Your task to perform on an android device: install app "DoorDash - Food Delivery" Image 0: 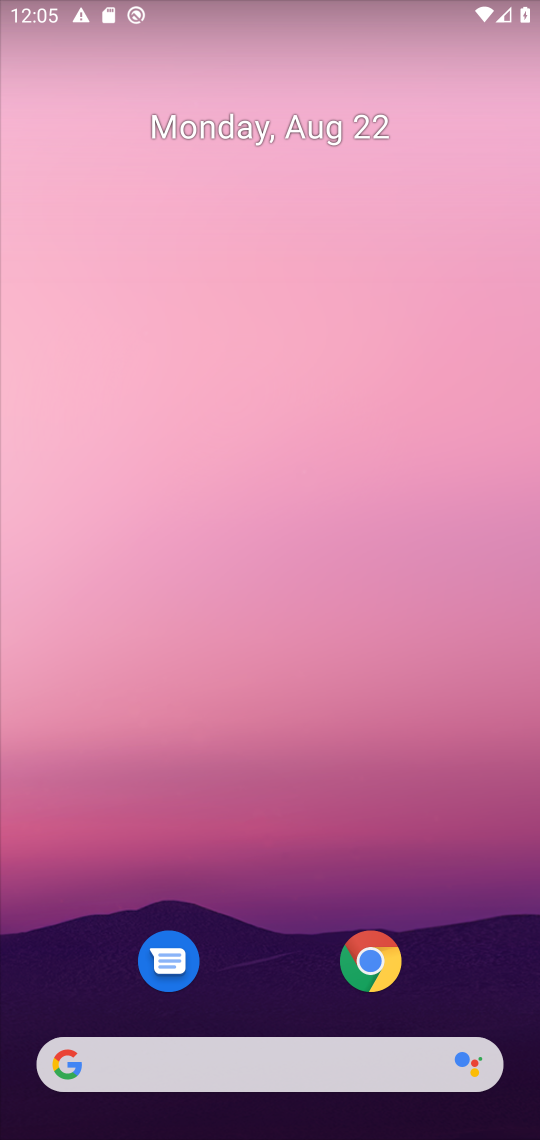
Step 0: press home button
Your task to perform on an android device: install app "DoorDash - Food Delivery" Image 1: 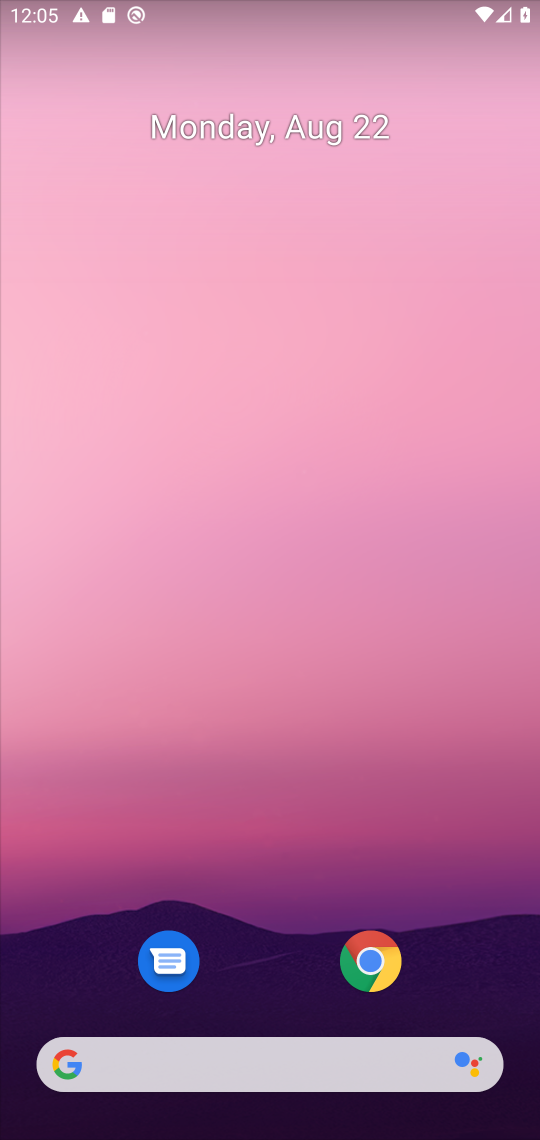
Step 1: drag from (474, 999) to (471, 88)
Your task to perform on an android device: install app "DoorDash - Food Delivery" Image 2: 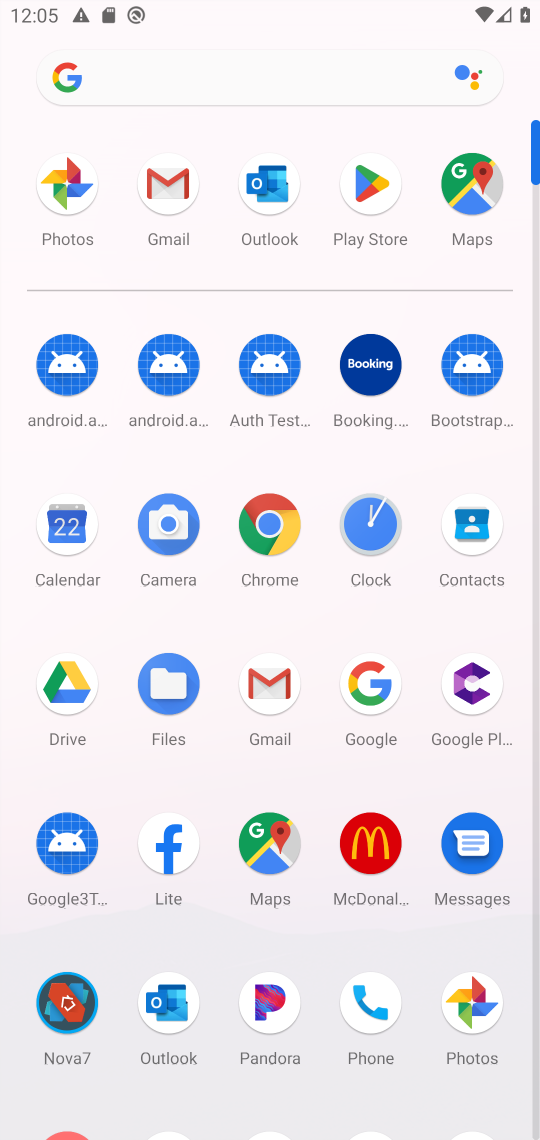
Step 2: click (373, 190)
Your task to perform on an android device: install app "DoorDash - Food Delivery" Image 3: 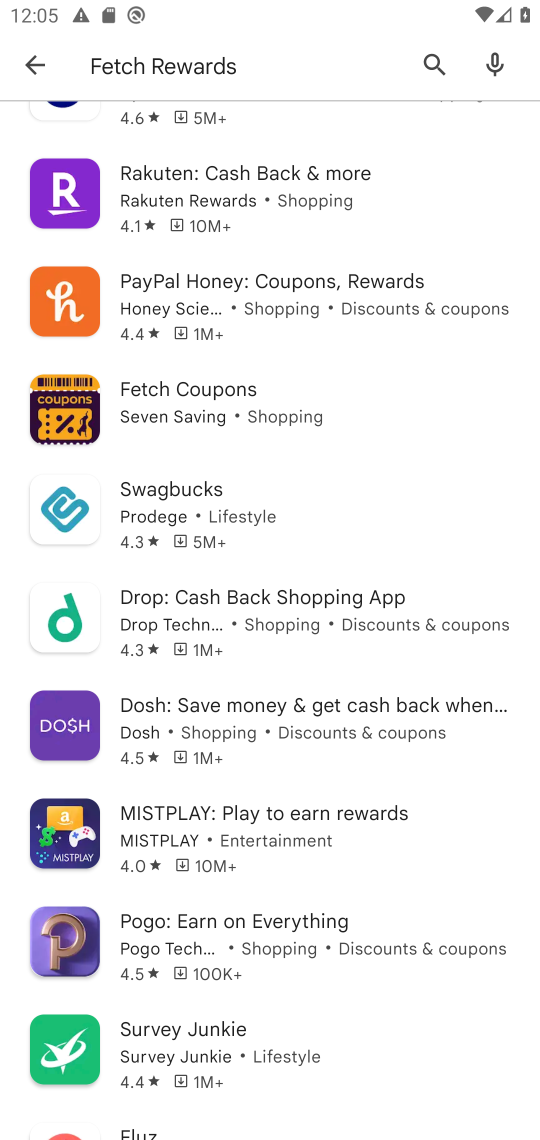
Step 3: press back button
Your task to perform on an android device: install app "DoorDash - Food Delivery" Image 4: 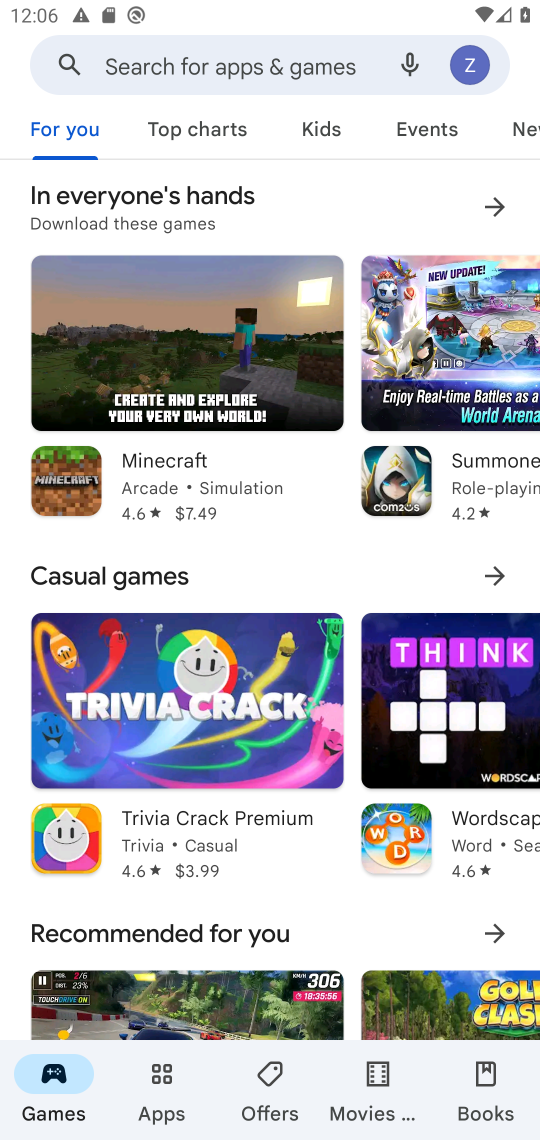
Step 4: click (259, 52)
Your task to perform on an android device: install app "DoorDash - Food Delivery" Image 5: 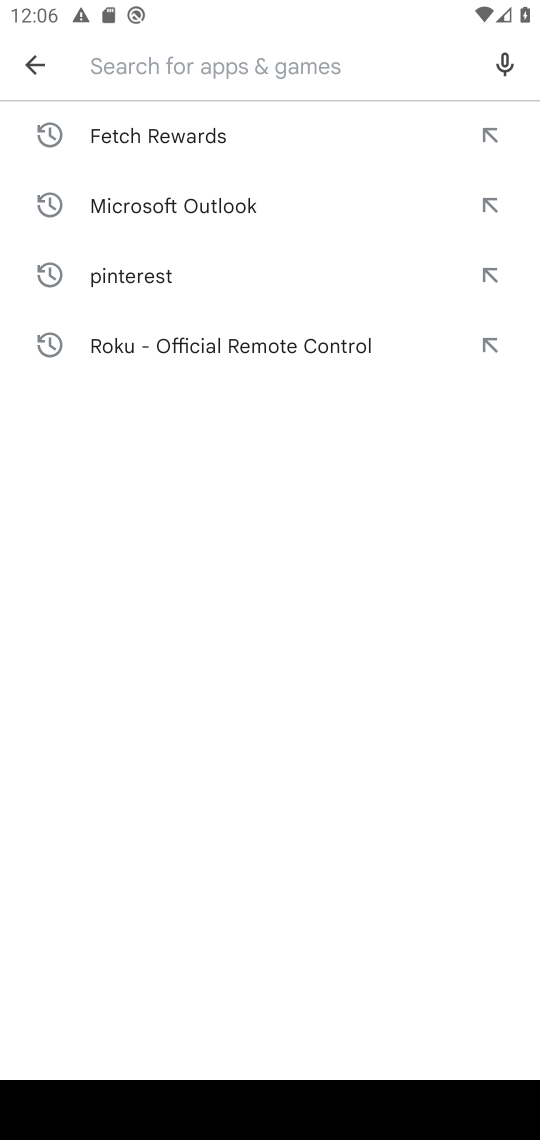
Step 5: press enter
Your task to perform on an android device: install app "DoorDash - Food Delivery" Image 6: 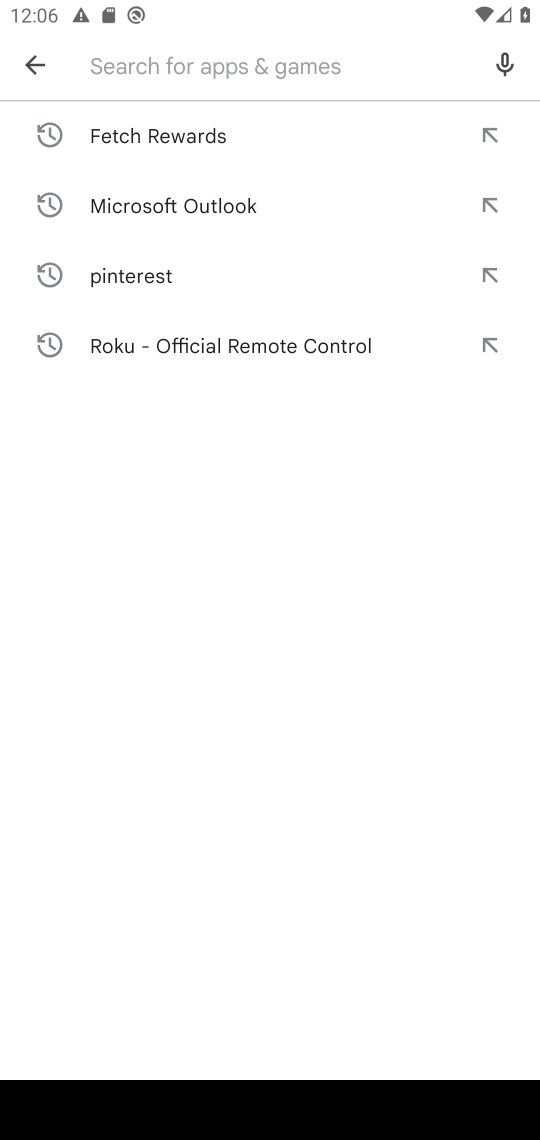
Step 6: type "DoorDash - Food Delivery"
Your task to perform on an android device: install app "DoorDash - Food Delivery" Image 7: 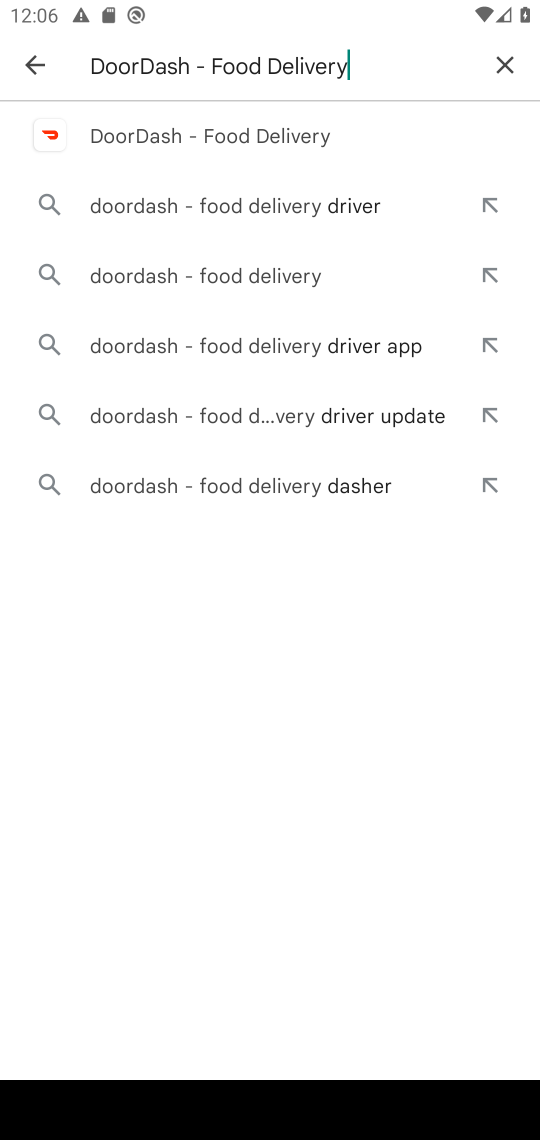
Step 7: click (278, 133)
Your task to perform on an android device: install app "DoorDash - Food Delivery" Image 8: 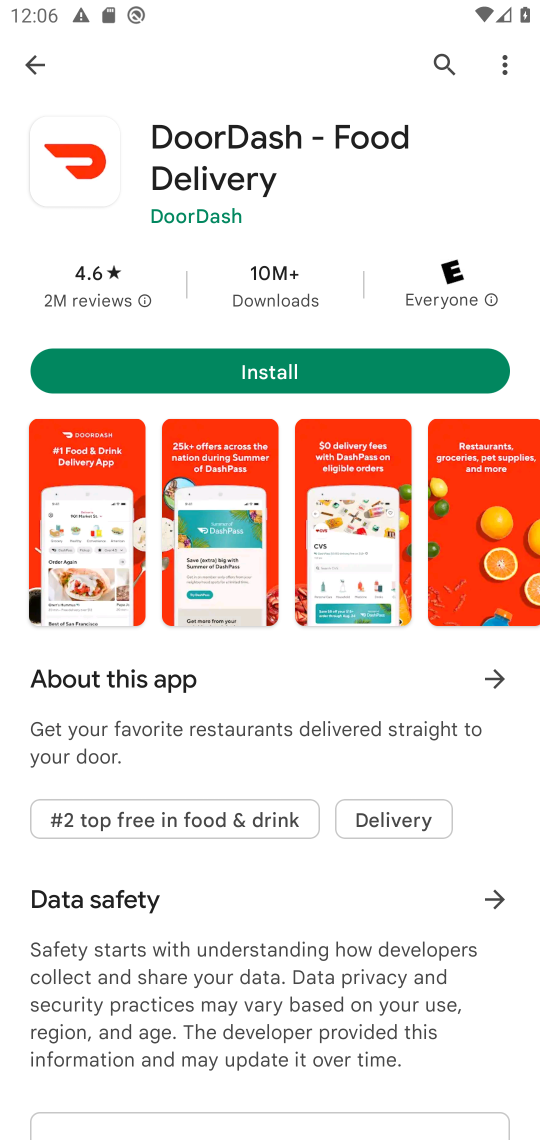
Step 8: click (429, 364)
Your task to perform on an android device: install app "DoorDash - Food Delivery" Image 9: 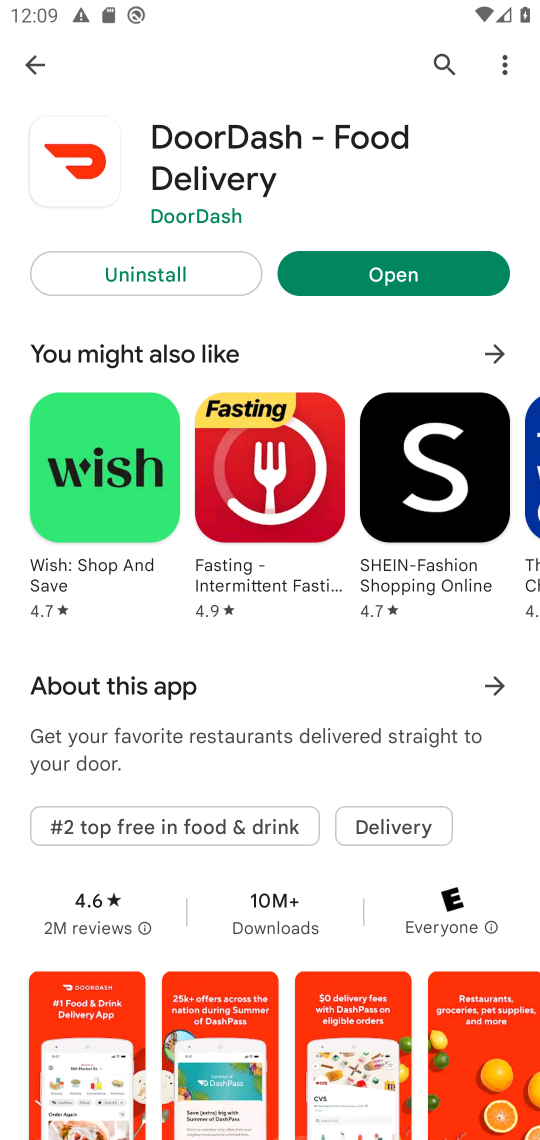
Step 9: task complete